Your task to perform on an android device: What's the weather? Image 0: 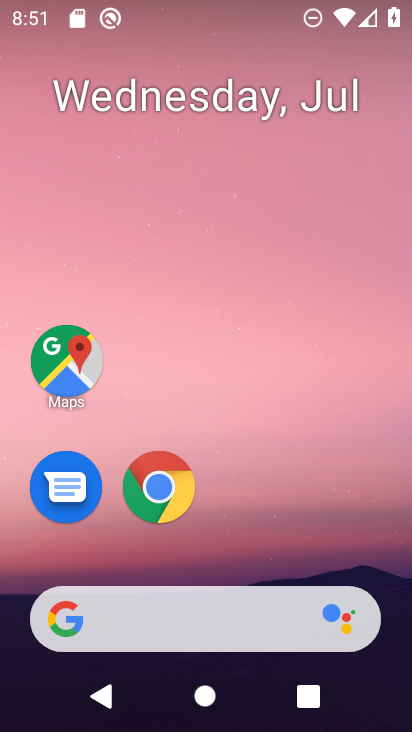
Step 0: click (198, 607)
Your task to perform on an android device: What's the weather? Image 1: 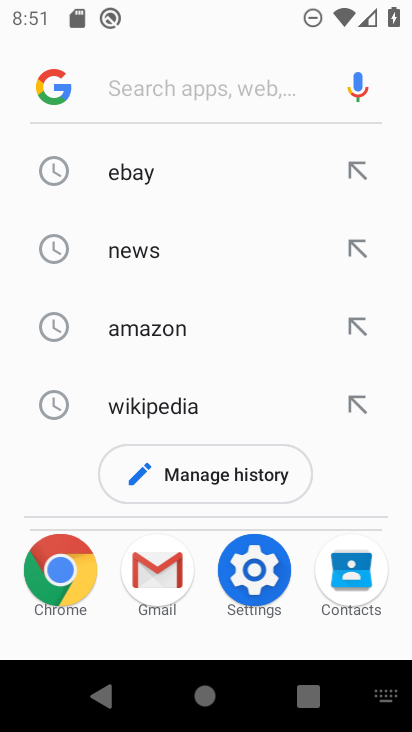
Step 1: type "weather"
Your task to perform on an android device: What's the weather? Image 2: 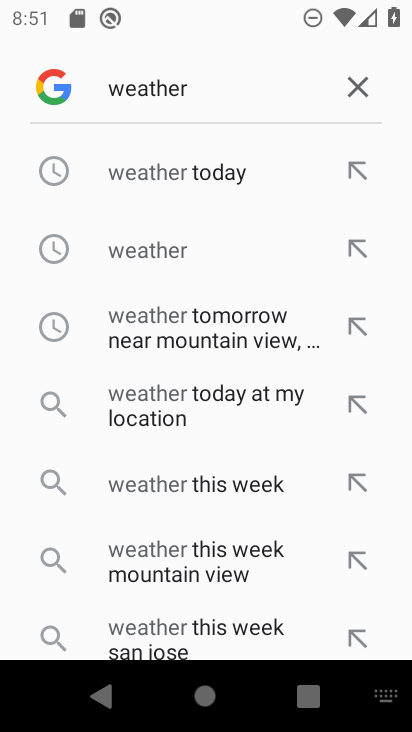
Step 2: click (227, 256)
Your task to perform on an android device: What's the weather? Image 3: 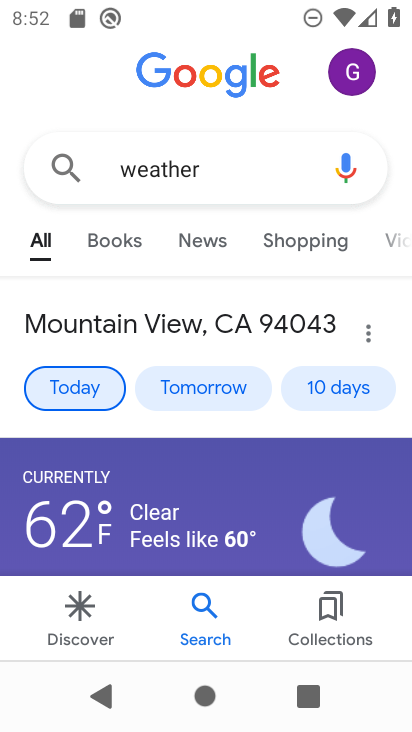
Step 3: task complete